Your task to perform on an android device: turn smart compose on in the gmail app Image 0: 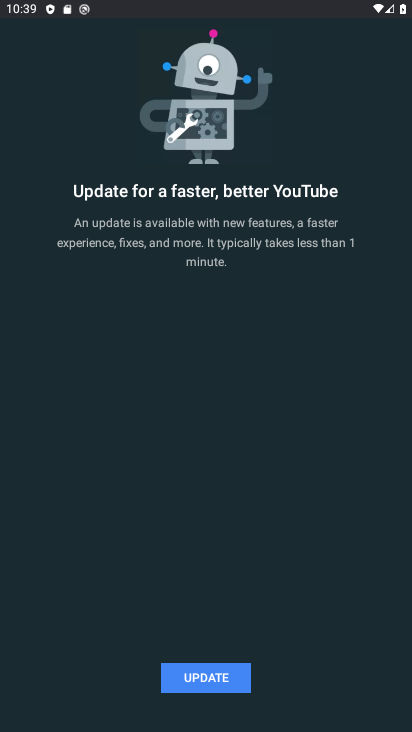
Step 0: press home button
Your task to perform on an android device: turn smart compose on in the gmail app Image 1: 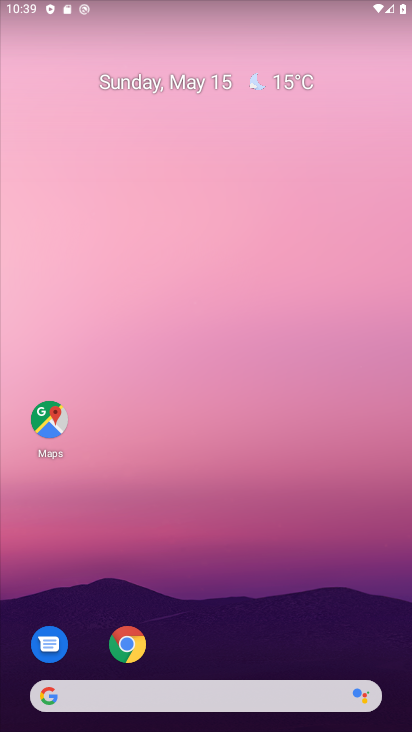
Step 1: drag from (282, 609) to (189, 13)
Your task to perform on an android device: turn smart compose on in the gmail app Image 2: 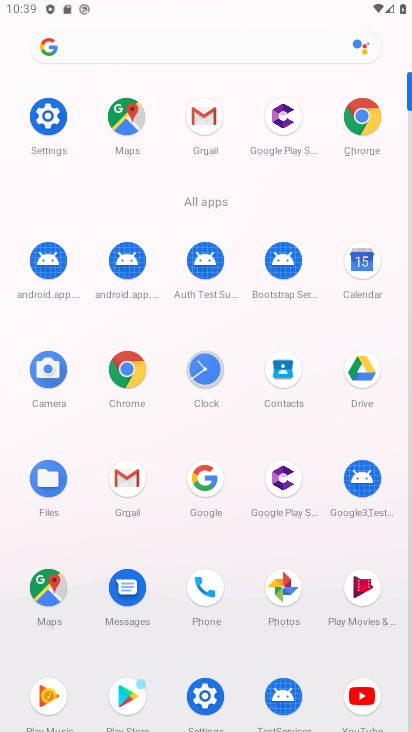
Step 2: click (132, 479)
Your task to perform on an android device: turn smart compose on in the gmail app Image 3: 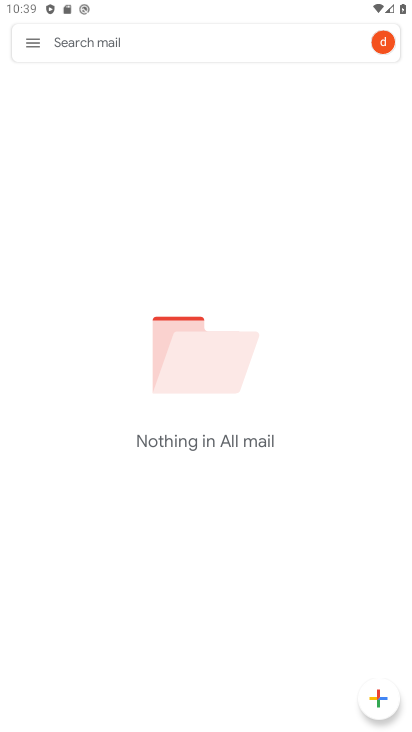
Step 3: click (32, 40)
Your task to perform on an android device: turn smart compose on in the gmail app Image 4: 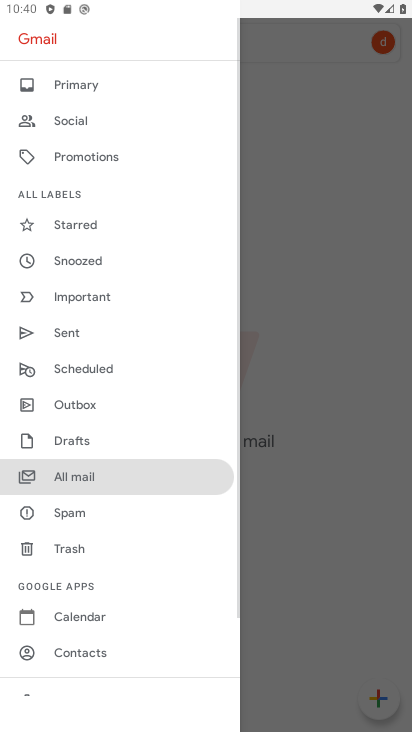
Step 4: drag from (111, 593) to (101, 211)
Your task to perform on an android device: turn smart compose on in the gmail app Image 5: 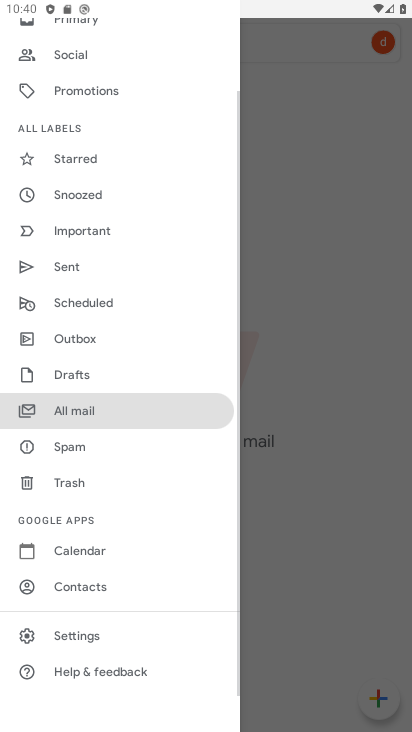
Step 5: click (98, 637)
Your task to perform on an android device: turn smart compose on in the gmail app Image 6: 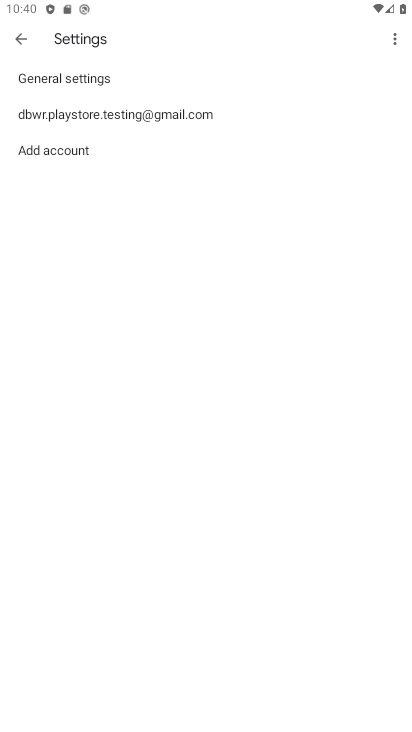
Step 6: click (151, 109)
Your task to perform on an android device: turn smart compose on in the gmail app Image 7: 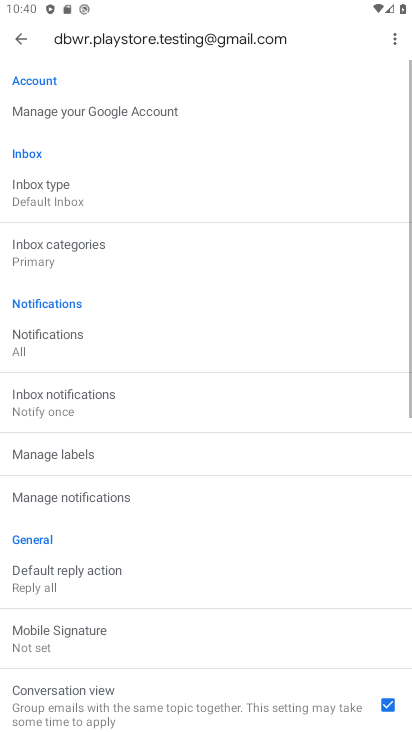
Step 7: task complete